Your task to perform on an android device: change the clock style Image 0: 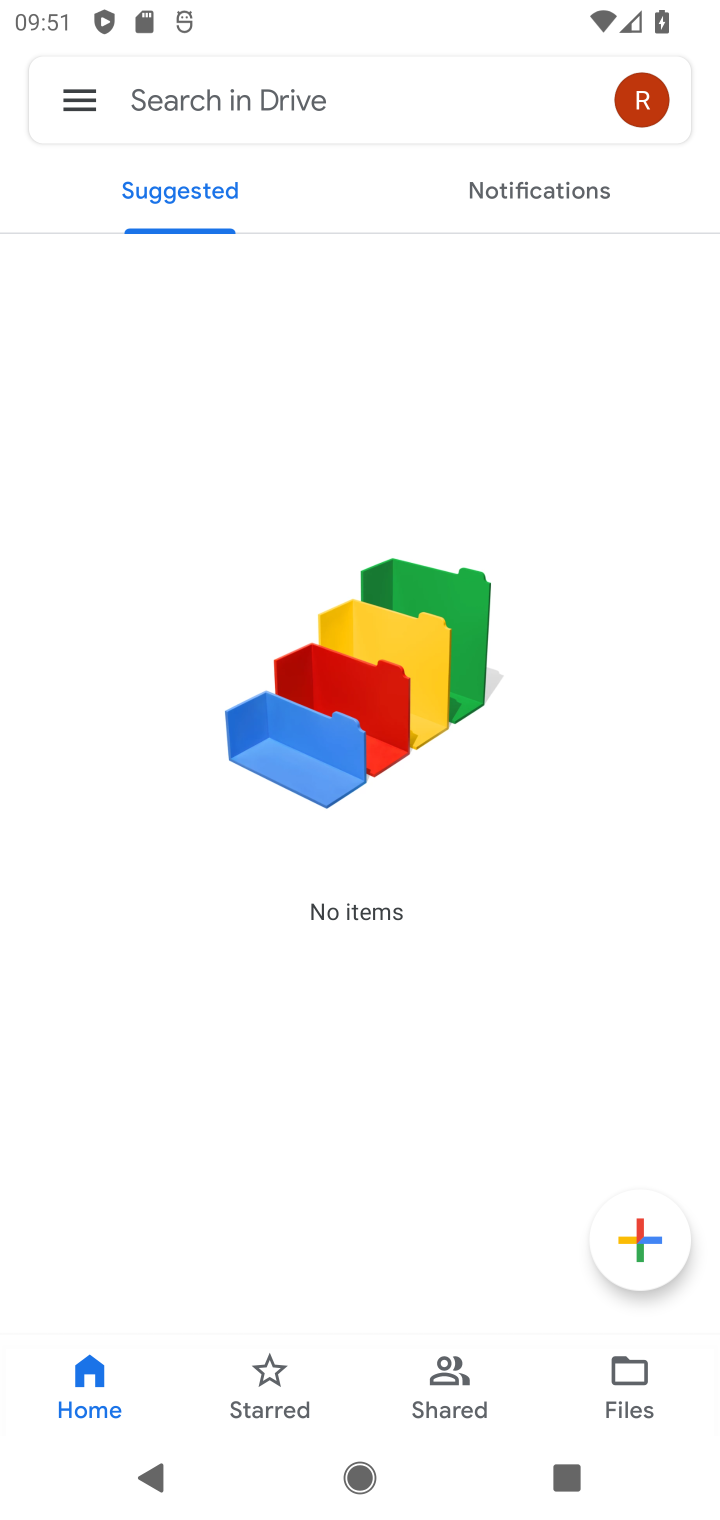
Step 0: press home button
Your task to perform on an android device: change the clock style Image 1: 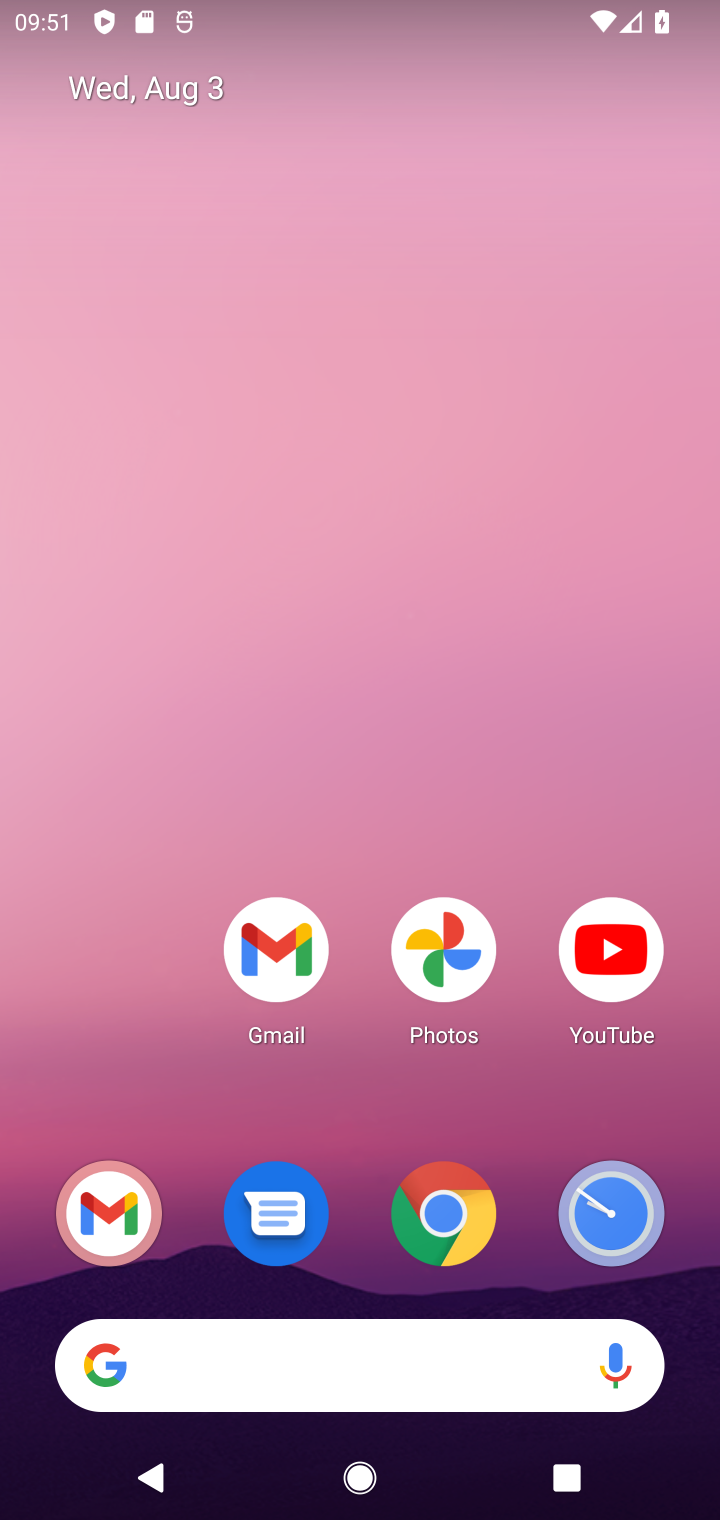
Step 1: click (608, 1200)
Your task to perform on an android device: change the clock style Image 2: 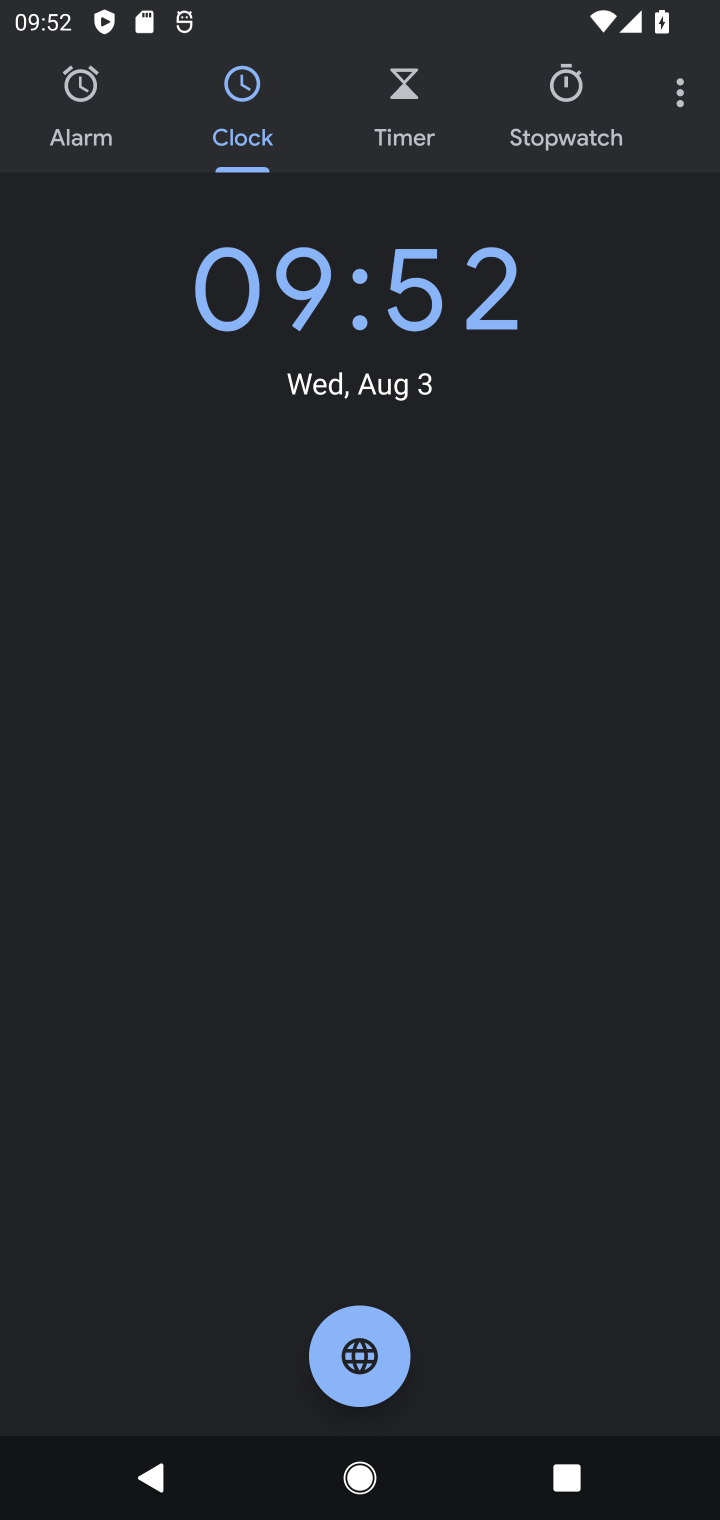
Step 2: click (682, 98)
Your task to perform on an android device: change the clock style Image 3: 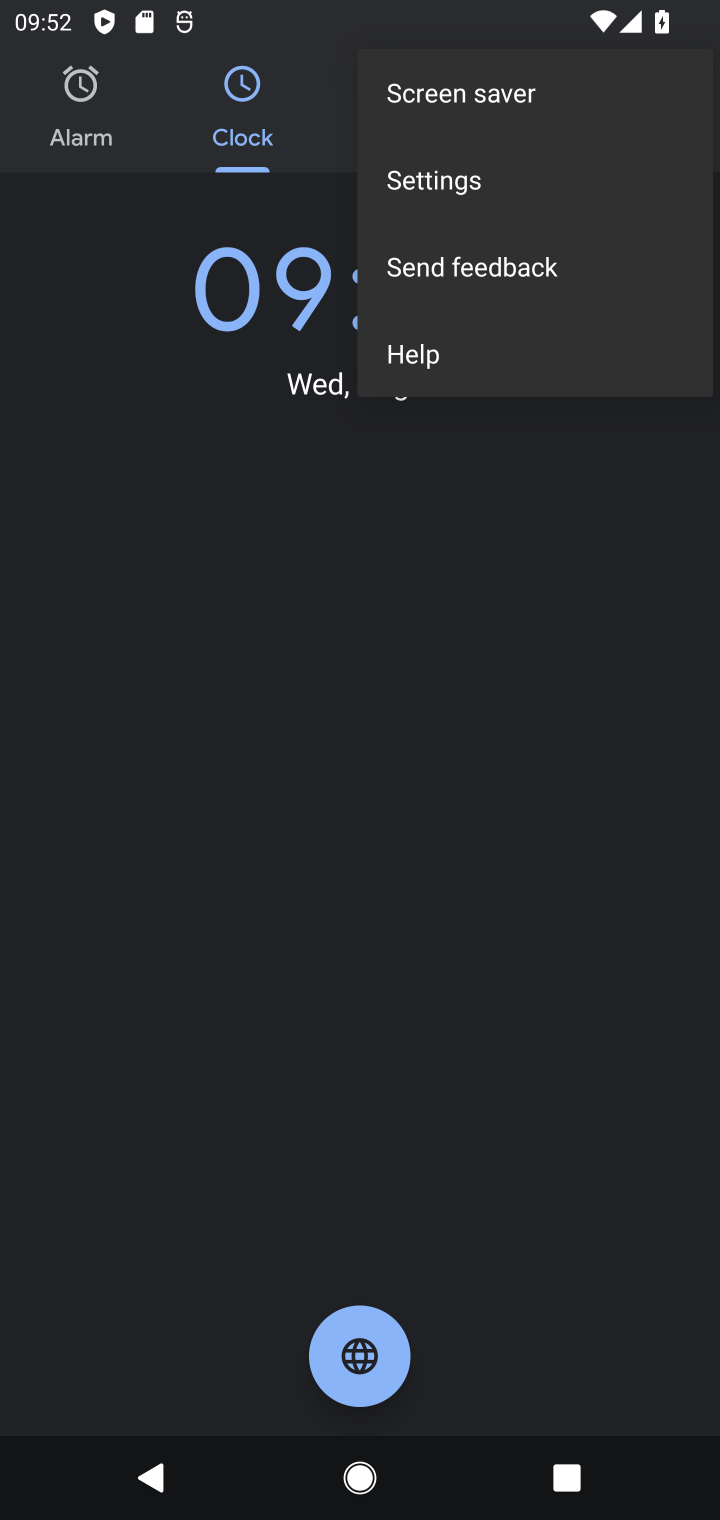
Step 3: click (438, 178)
Your task to perform on an android device: change the clock style Image 4: 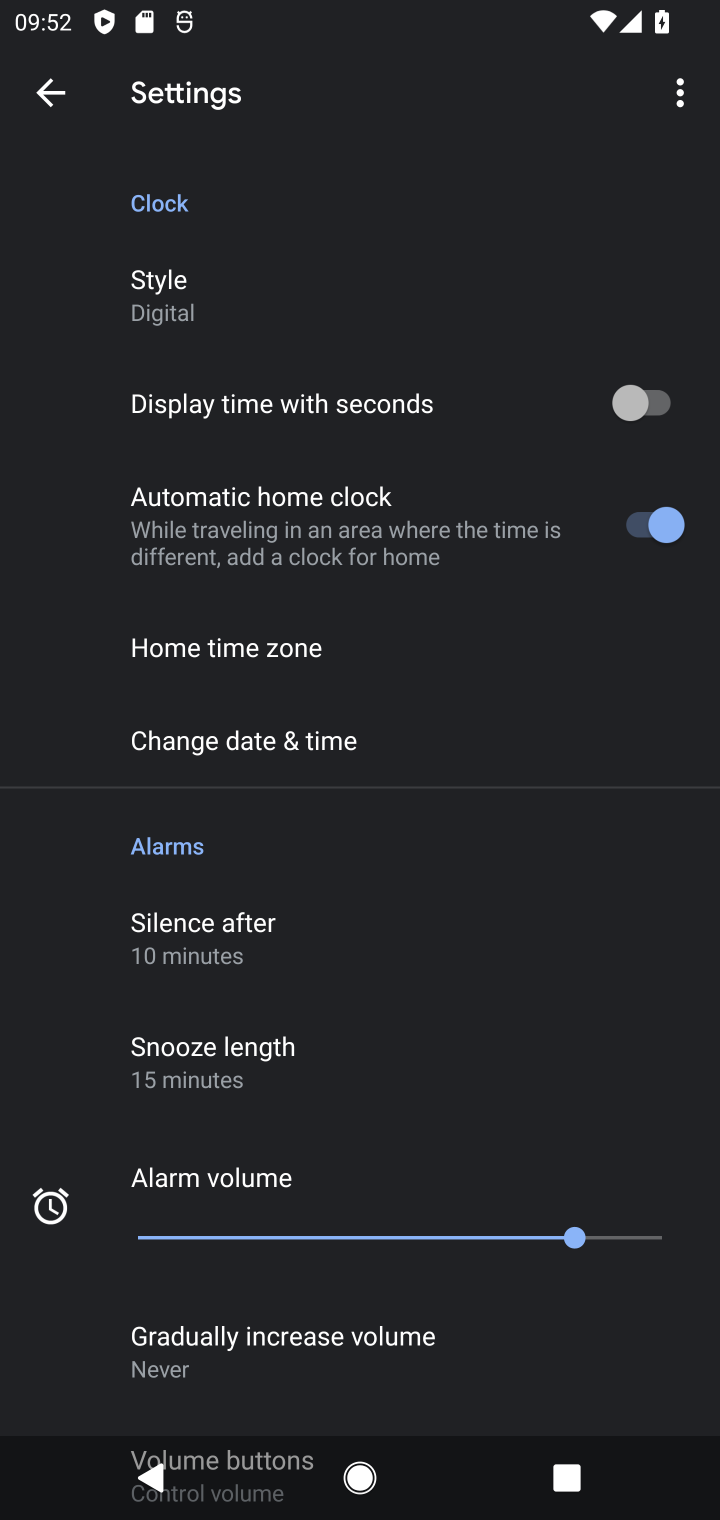
Step 4: click (277, 314)
Your task to perform on an android device: change the clock style Image 5: 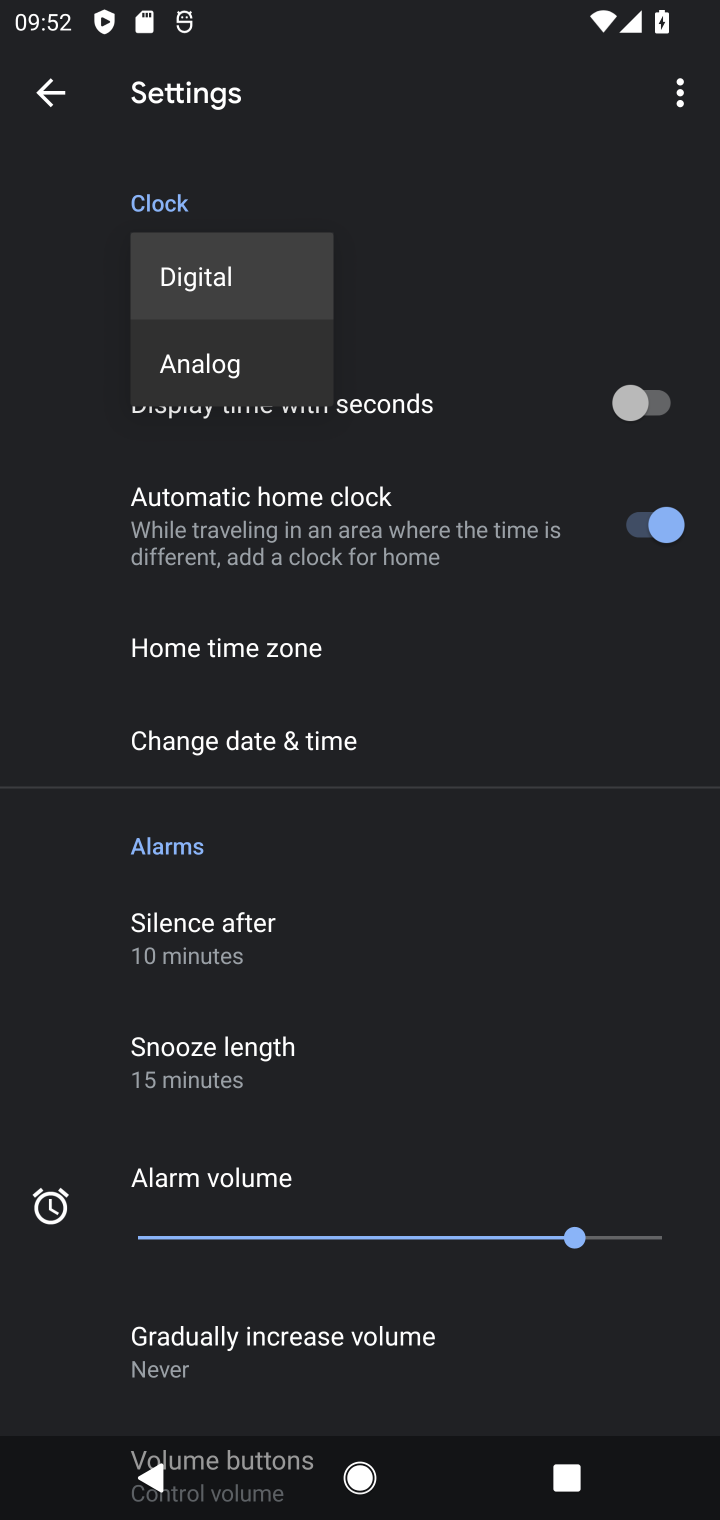
Step 5: click (224, 376)
Your task to perform on an android device: change the clock style Image 6: 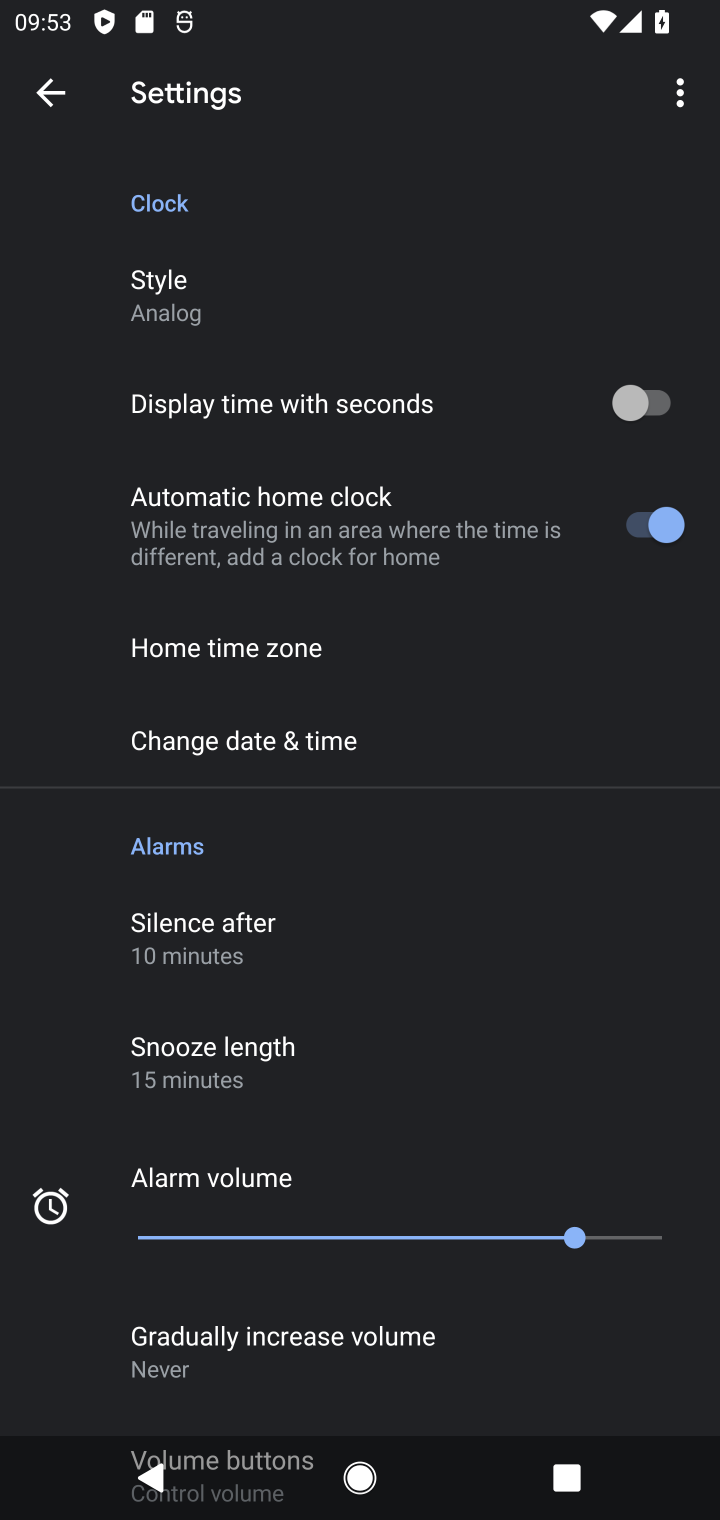
Step 6: task complete